Your task to perform on an android device: Go to Amazon Image 0: 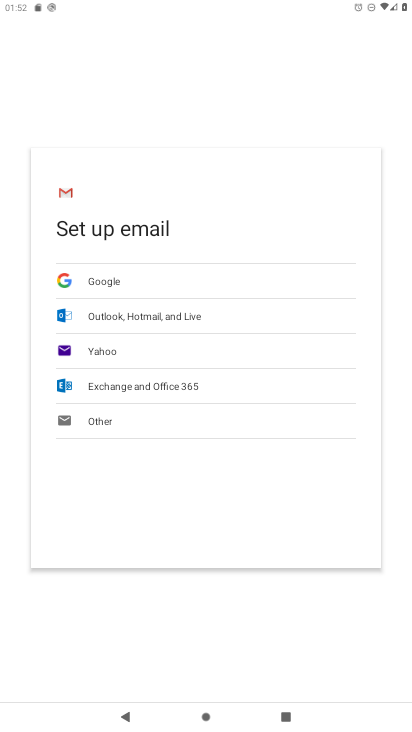
Step 0: press home button
Your task to perform on an android device: Go to Amazon Image 1: 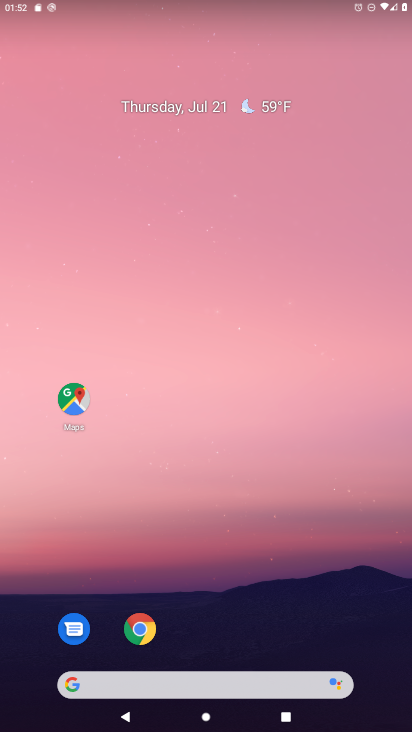
Step 1: click (139, 629)
Your task to perform on an android device: Go to Amazon Image 2: 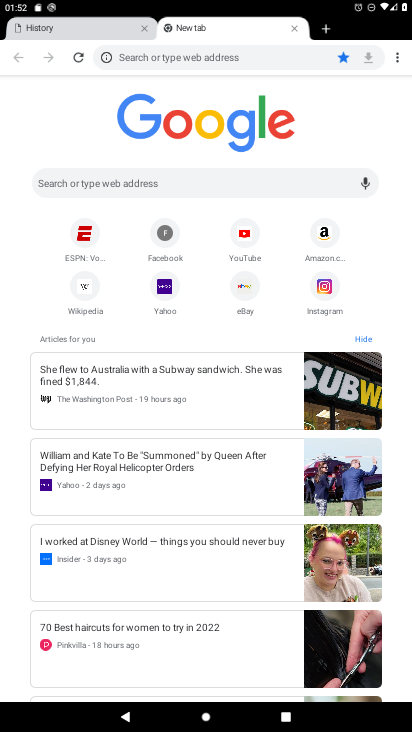
Step 2: click (215, 182)
Your task to perform on an android device: Go to Amazon Image 3: 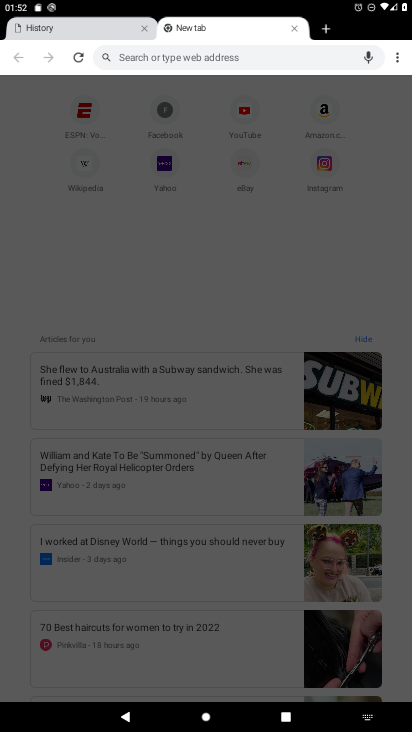
Step 3: type "Amazon"
Your task to perform on an android device: Go to Amazon Image 4: 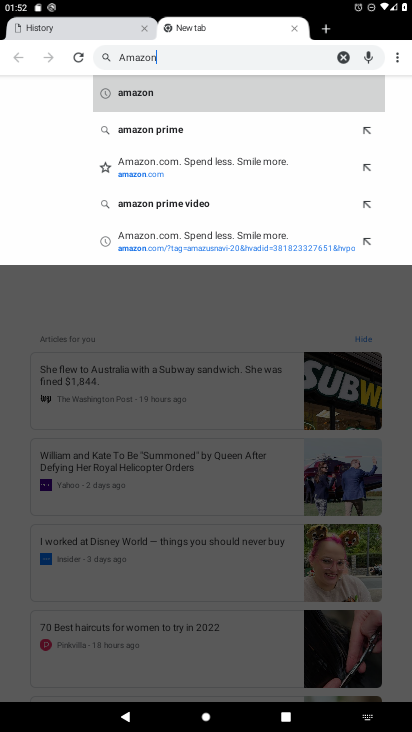
Step 4: click (145, 97)
Your task to perform on an android device: Go to Amazon Image 5: 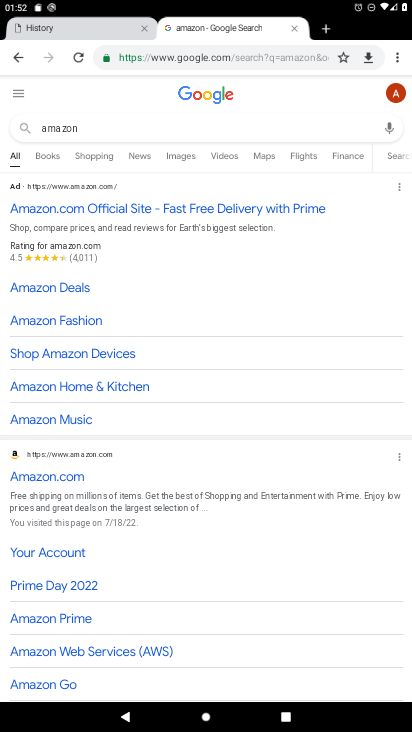
Step 5: click (45, 478)
Your task to perform on an android device: Go to Amazon Image 6: 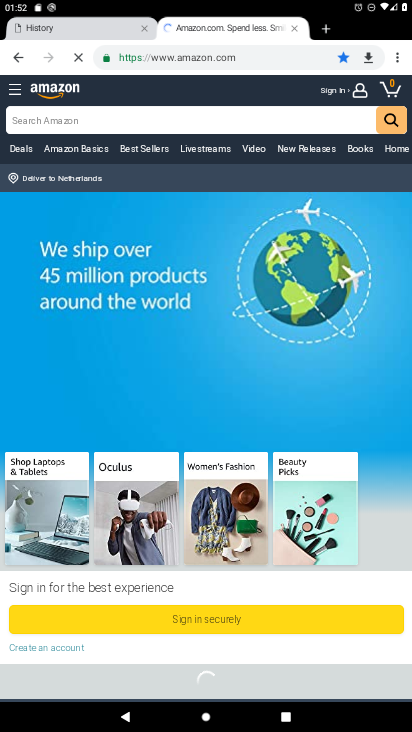
Step 6: task complete